Your task to perform on an android device: snooze an email in the gmail app Image 0: 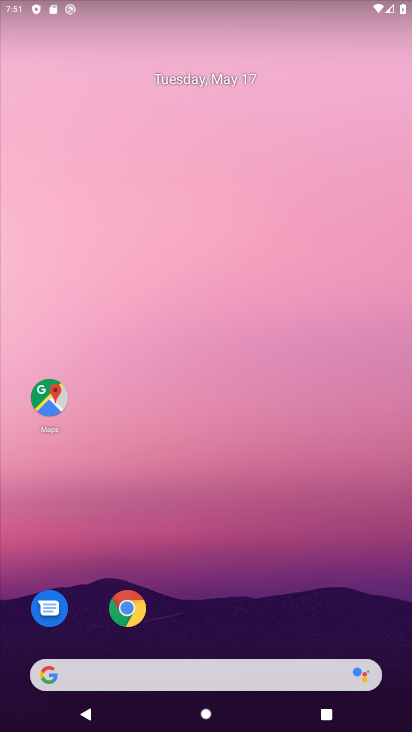
Step 0: drag from (185, 615) to (159, 356)
Your task to perform on an android device: snooze an email in the gmail app Image 1: 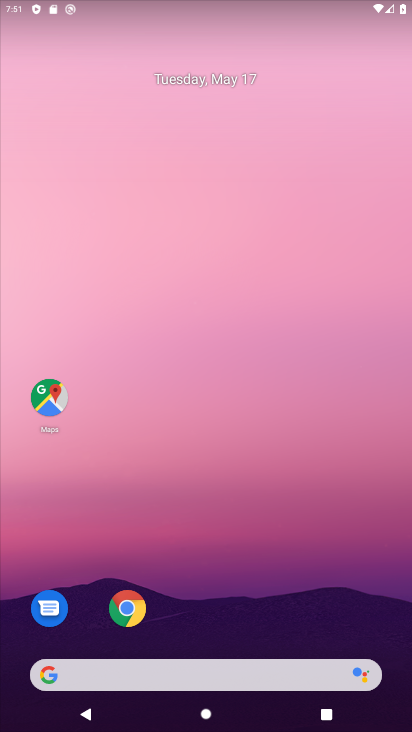
Step 1: drag from (219, 679) to (177, 328)
Your task to perform on an android device: snooze an email in the gmail app Image 2: 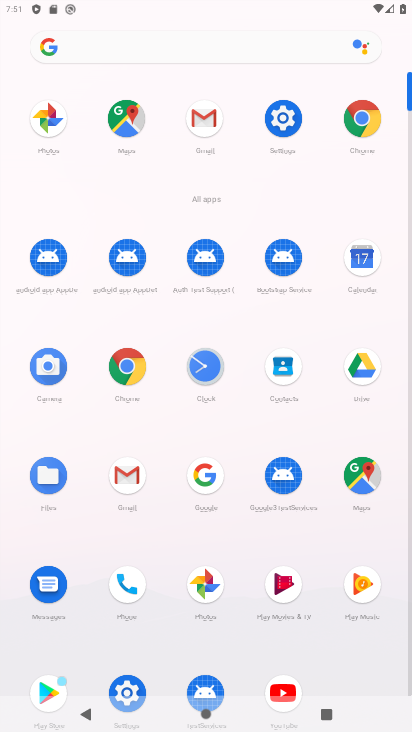
Step 2: click (204, 116)
Your task to perform on an android device: snooze an email in the gmail app Image 3: 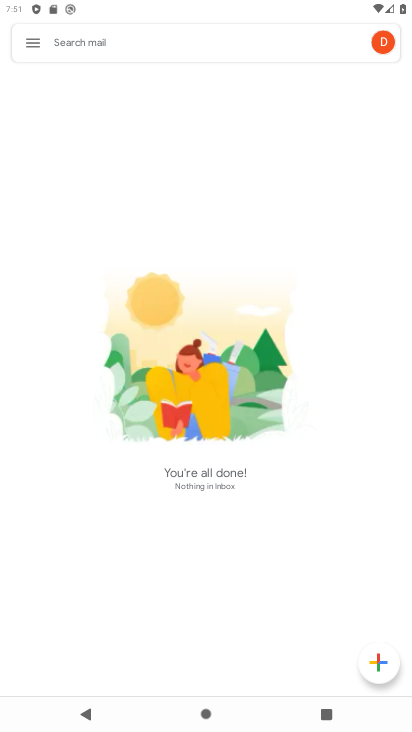
Step 3: click (32, 39)
Your task to perform on an android device: snooze an email in the gmail app Image 4: 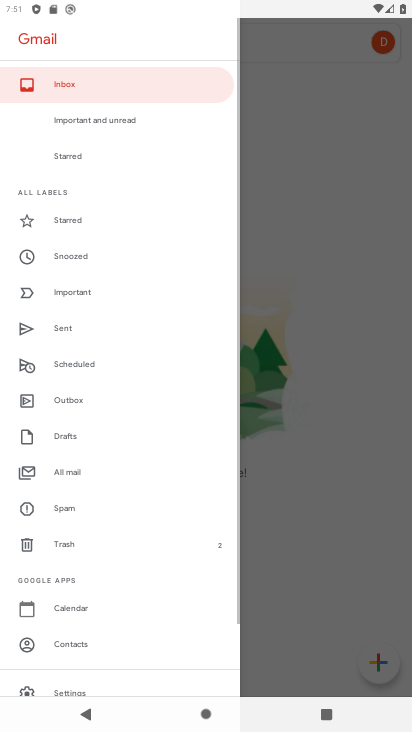
Step 4: click (89, 251)
Your task to perform on an android device: snooze an email in the gmail app Image 5: 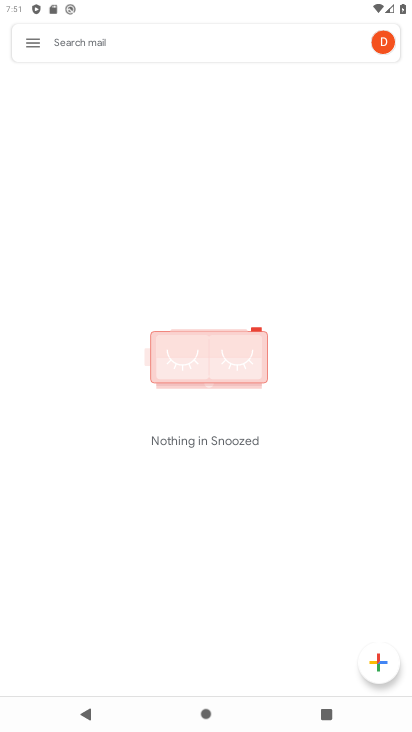
Step 5: task complete